Your task to perform on an android device: move a message to another label in the gmail app Image 0: 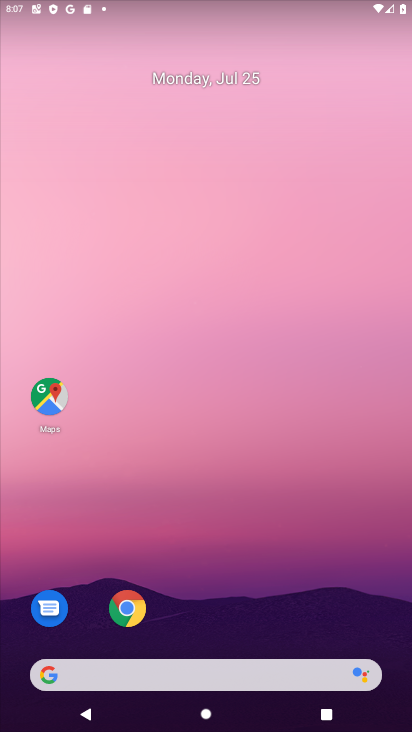
Step 0: drag from (165, 648) to (184, 110)
Your task to perform on an android device: move a message to another label in the gmail app Image 1: 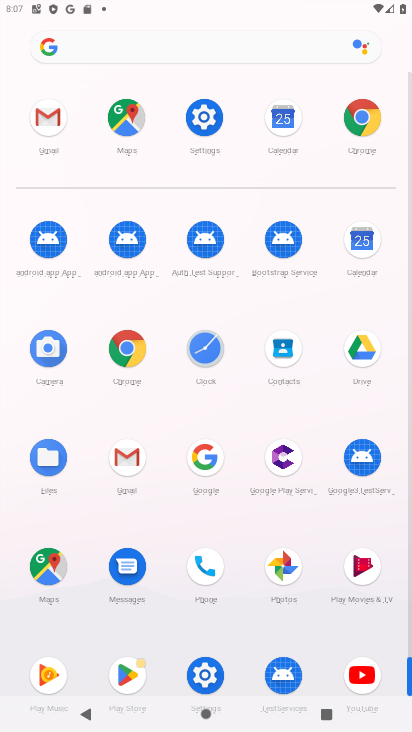
Step 1: click (135, 484)
Your task to perform on an android device: move a message to another label in the gmail app Image 2: 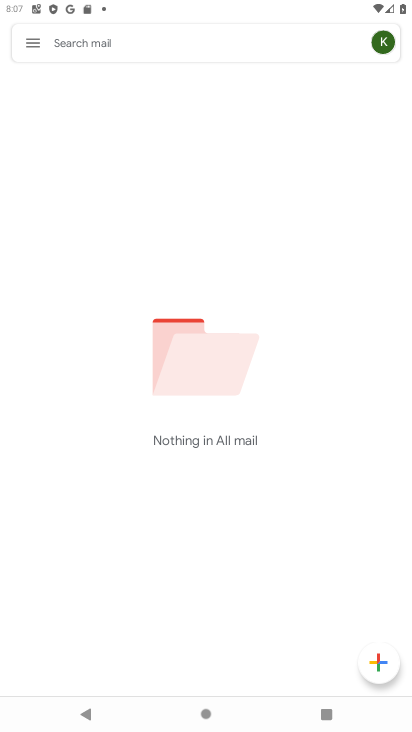
Step 2: task complete